Your task to perform on an android device: turn on location history Image 0: 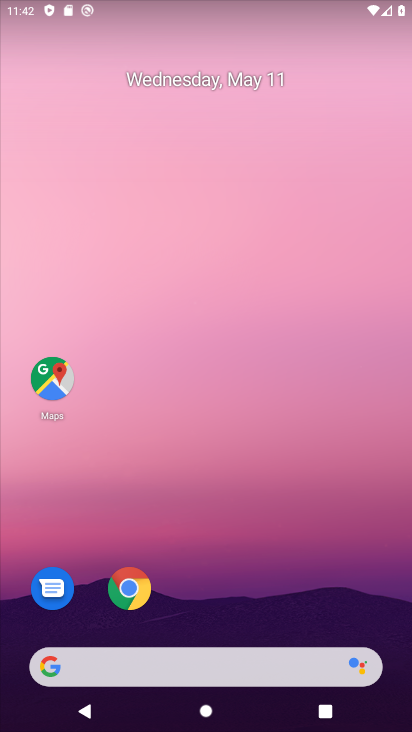
Step 0: drag from (193, 651) to (193, 208)
Your task to perform on an android device: turn on location history Image 1: 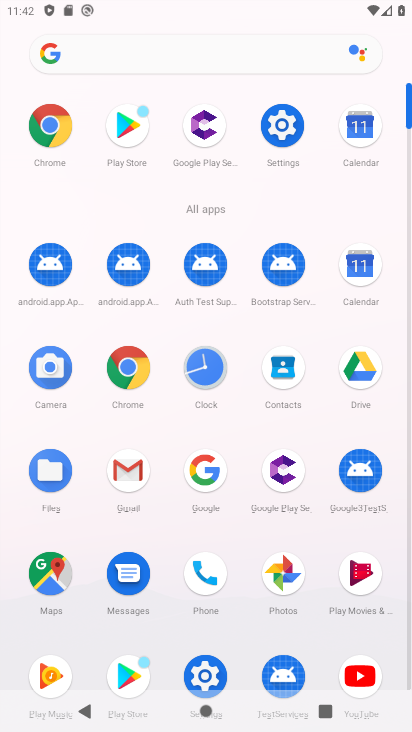
Step 1: click (296, 117)
Your task to perform on an android device: turn on location history Image 2: 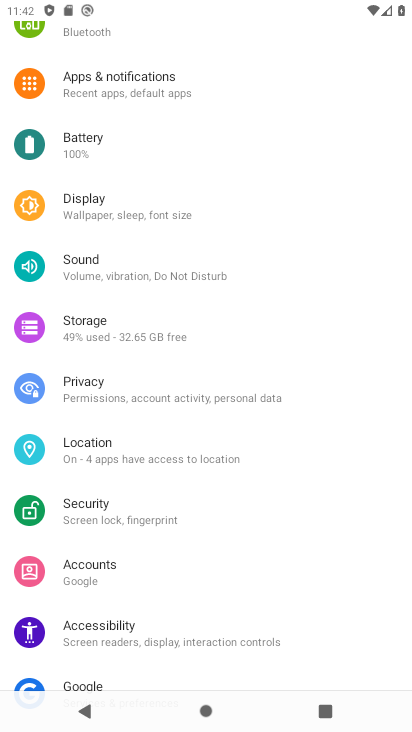
Step 2: click (112, 442)
Your task to perform on an android device: turn on location history Image 3: 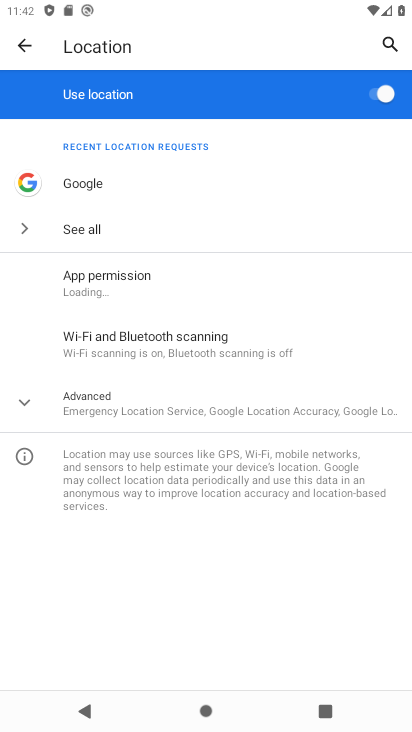
Step 3: click (96, 403)
Your task to perform on an android device: turn on location history Image 4: 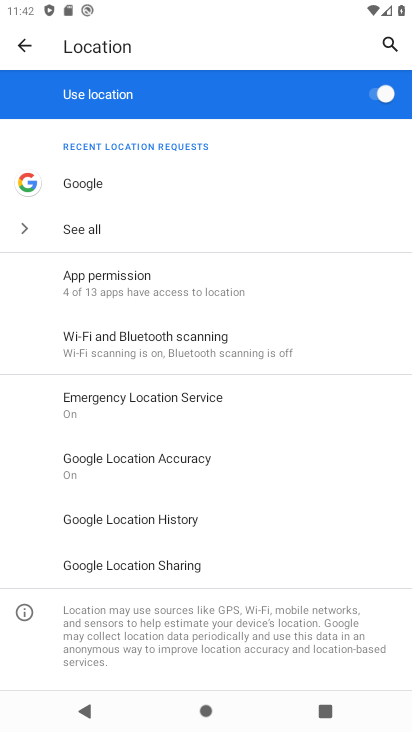
Step 4: click (129, 524)
Your task to perform on an android device: turn on location history Image 5: 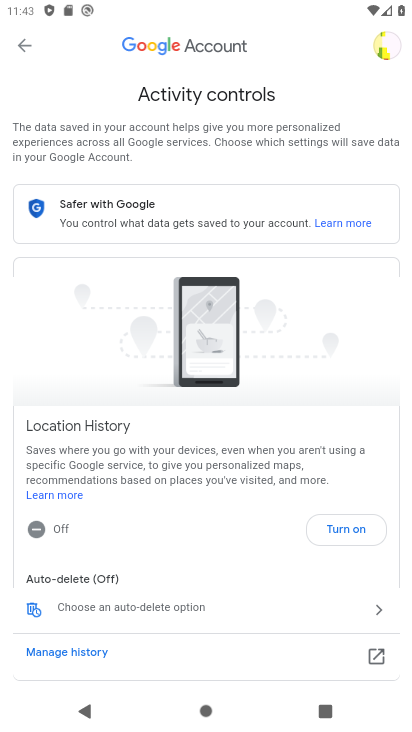
Step 5: click (331, 527)
Your task to perform on an android device: turn on location history Image 6: 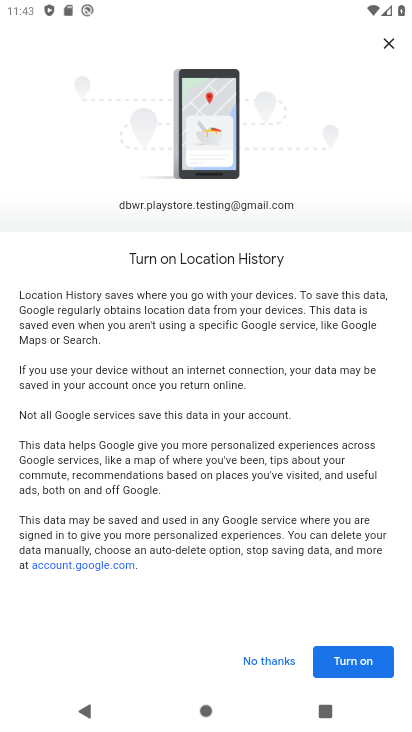
Step 6: click (349, 665)
Your task to perform on an android device: turn on location history Image 7: 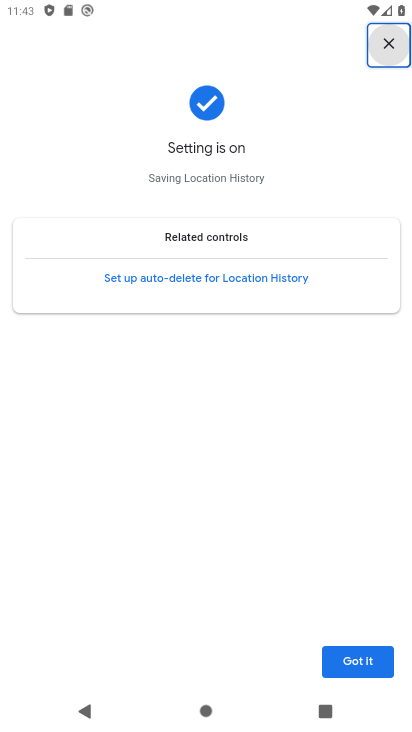
Step 7: task complete